Your task to perform on an android device: set default search engine in the chrome app Image 0: 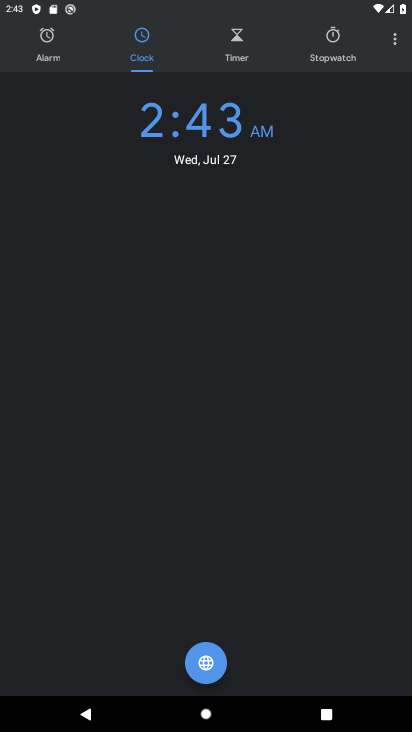
Step 0: press home button
Your task to perform on an android device: set default search engine in the chrome app Image 1: 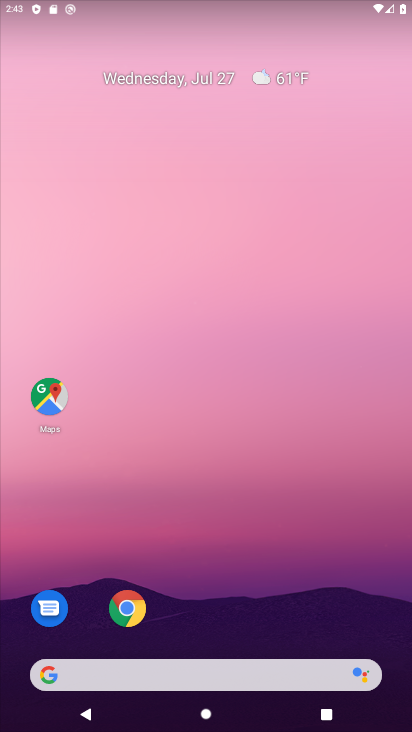
Step 1: click (125, 604)
Your task to perform on an android device: set default search engine in the chrome app Image 2: 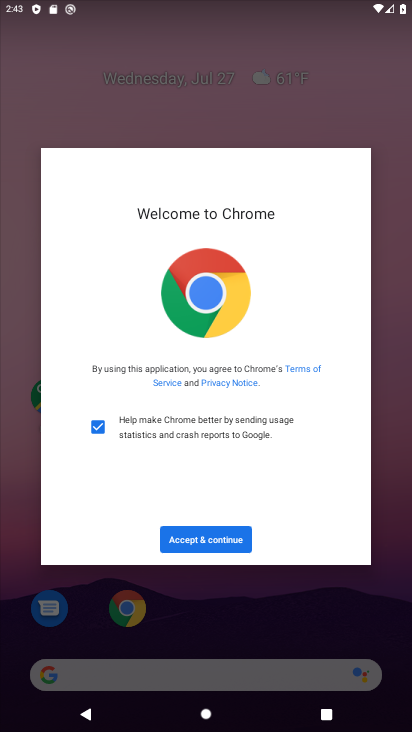
Step 2: click (208, 524)
Your task to perform on an android device: set default search engine in the chrome app Image 3: 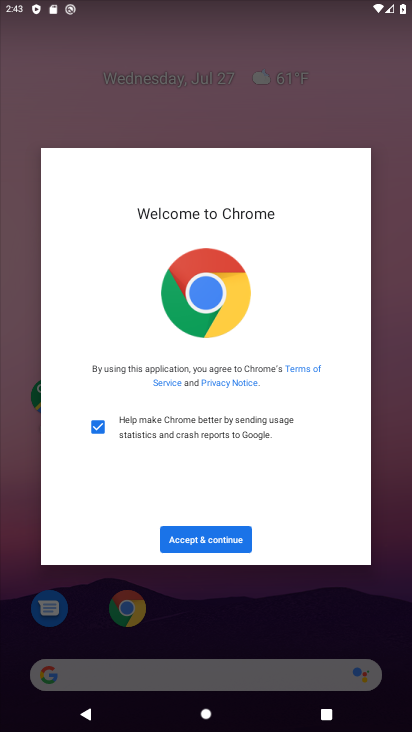
Step 3: click (208, 524)
Your task to perform on an android device: set default search engine in the chrome app Image 4: 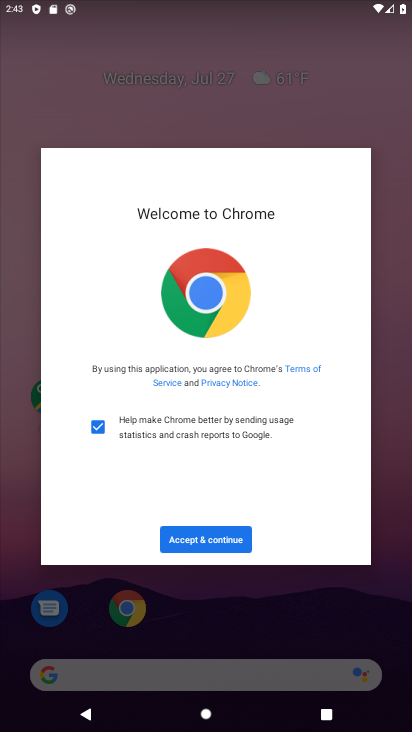
Step 4: click (216, 542)
Your task to perform on an android device: set default search engine in the chrome app Image 5: 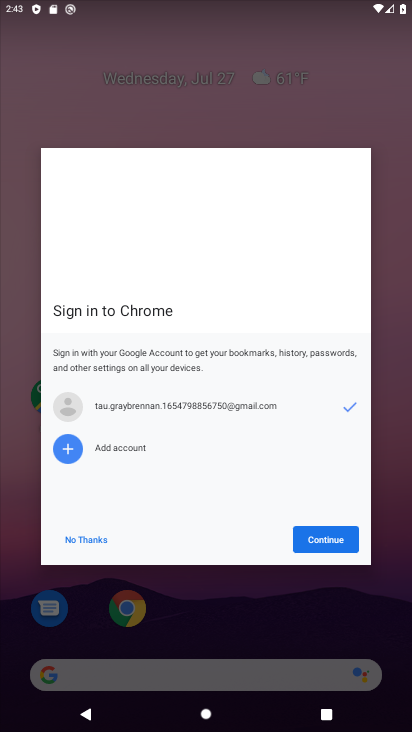
Step 5: click (311, 533)
Your task to perform on an android device: set default search engine in the chrome app Image 6: 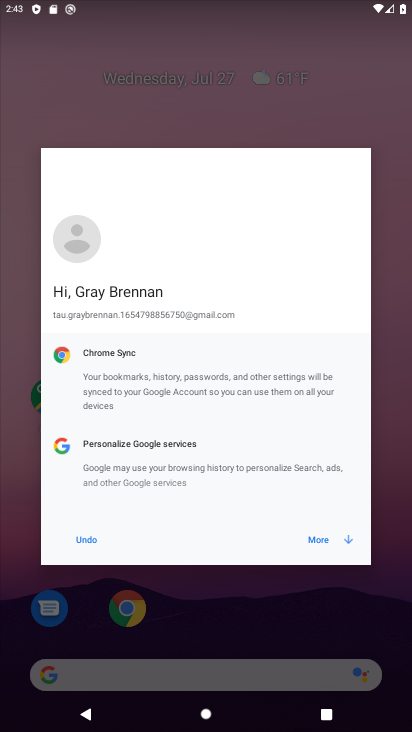
Step 6: click (311, 533)
Your task to perform on an android device: set default search engine in the chrome app Image 7: 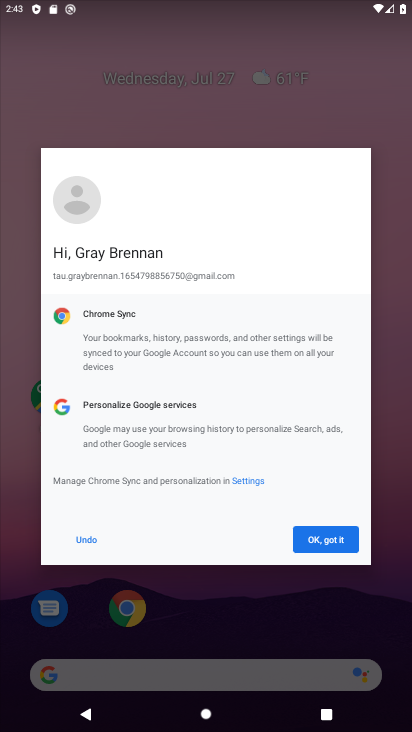
Step 7: click (311, 533)
Your task to perform on an android device: set default search engine in the chrome app Image 8: 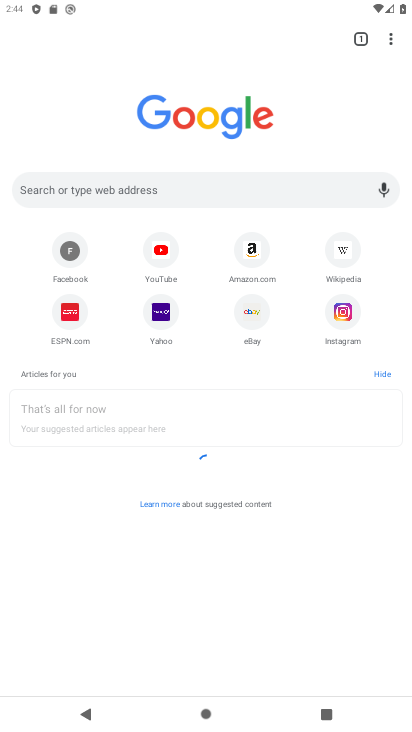
Step 8: click (394, 37)
Your task to perform on an android device: set default search engine in the chrome app Image 9: 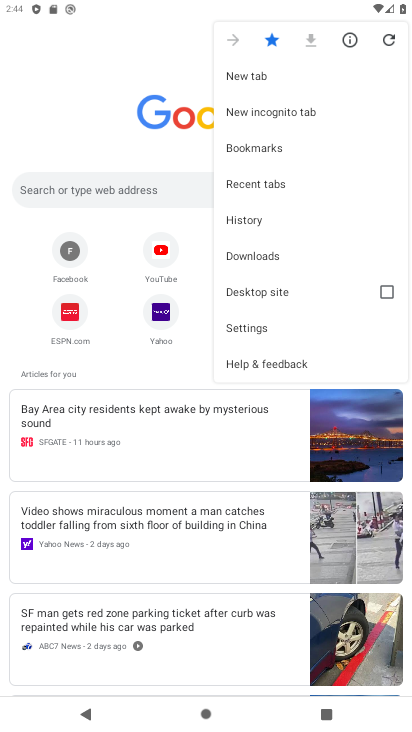
Step 9: click (235, 327)
Your task to perform on an android device: set default search engine in the chrome app Image 10: 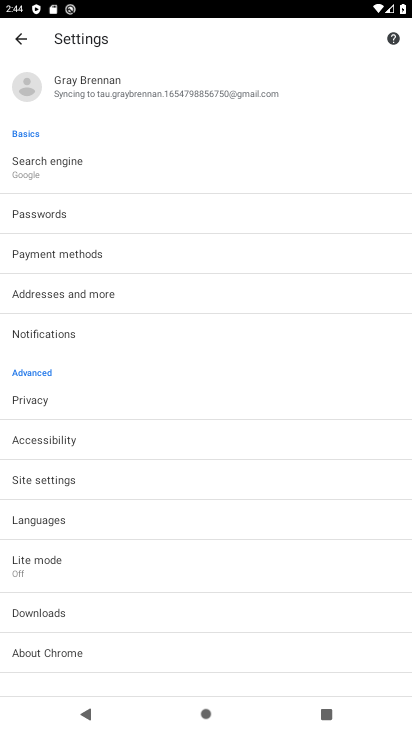
Step 10: click (99, 170)
Your task to perform on an android device: set default search engine in the chrome app Image 11: 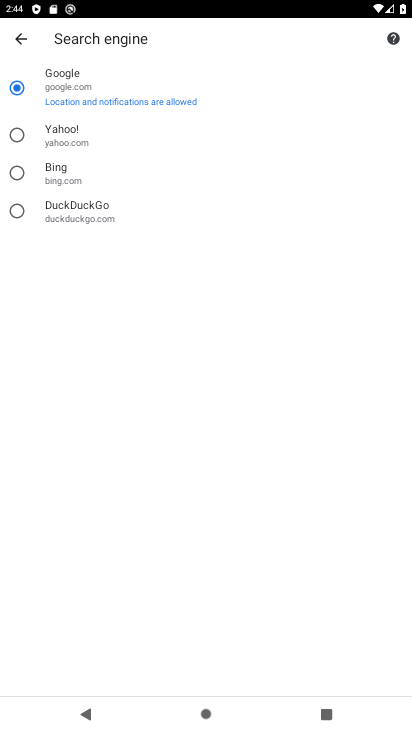
Step 11: click (56, 147)
Your task to perform on an android device: set default search engine in the chrome app Image 12: 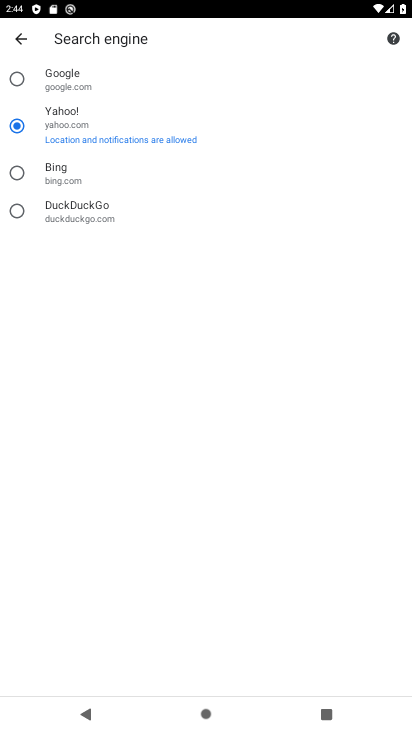
Step 12: task complete